Your task to perform on an android device: move an email to a new category in the gmail app Image 0: 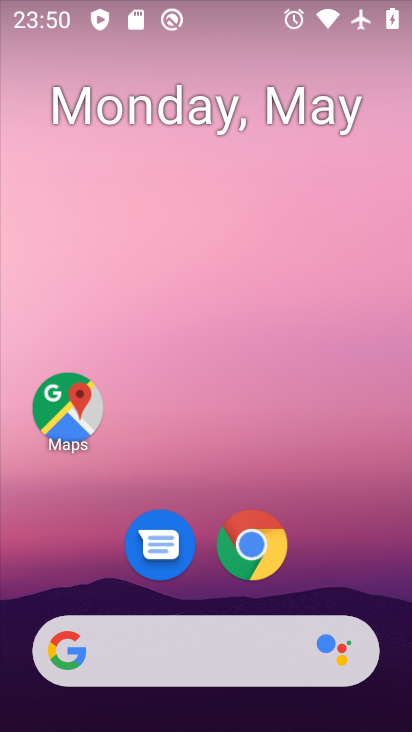
Step 0: drag from (334, 586) to (302, 37)
Your task to perform on an android device: move an email to a new category in the gmail app Image 1: 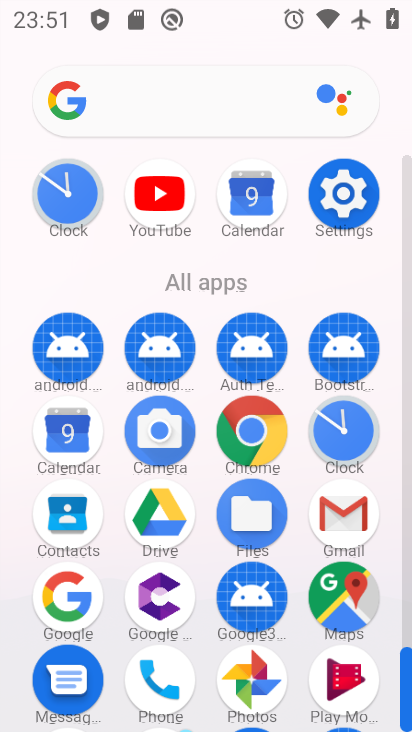
Step 1: click (335, 523)
Your task to perform on an android device: move an email to a new category in the gmail app Image 2: 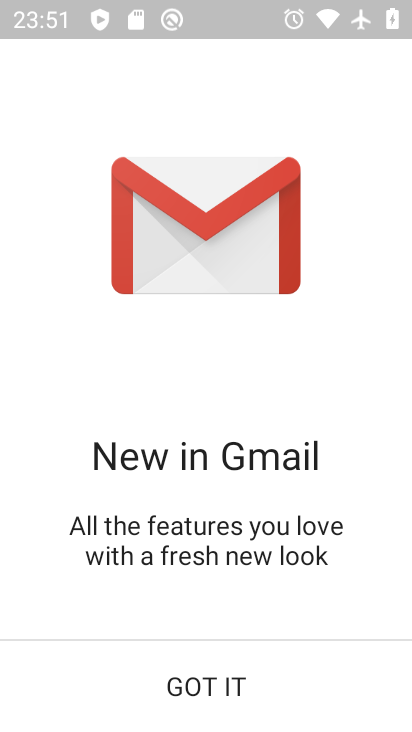
Step 2: click (283, 675)
Your task to perform on an android device: move an email to a new category in the gmail app Image 3: 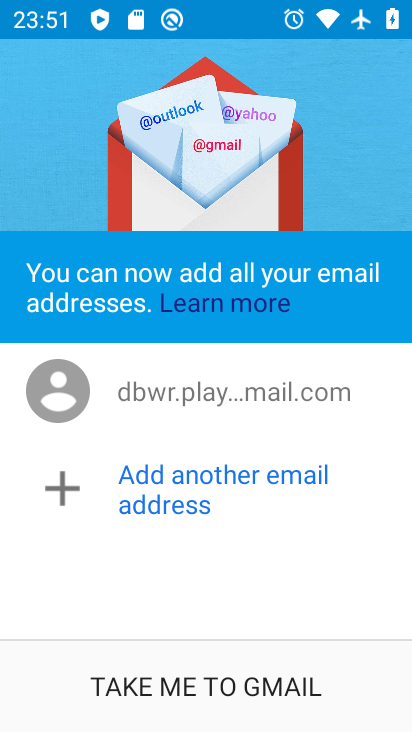
Step 3: click (247, 676)
Your task to perform on an android device: move an email to a new category in the gmail app Image 4: 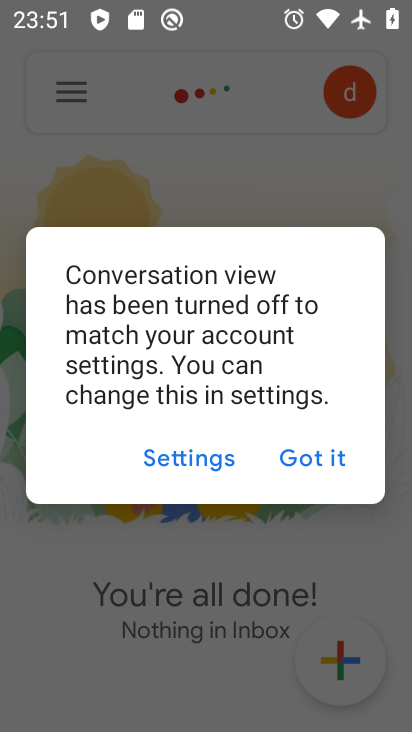
Step 4: click (295, 468)
Your task to perform on an android device: move an email to a new category in the gmail app Image 5: 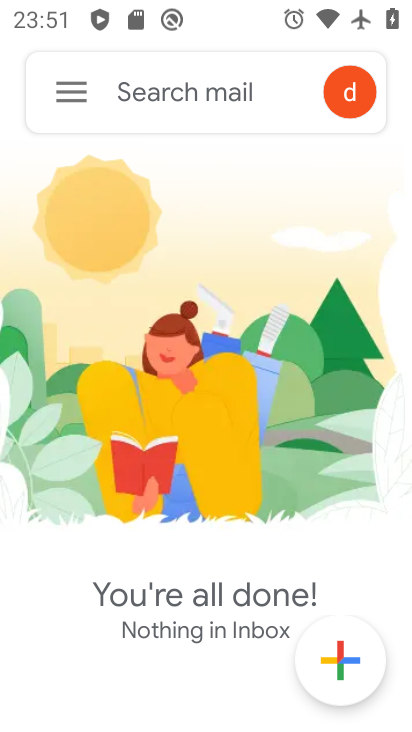
Step 5: click (76, 92)
Your task to perform on an android device: move an email to a new category in the gmail app Image 6: 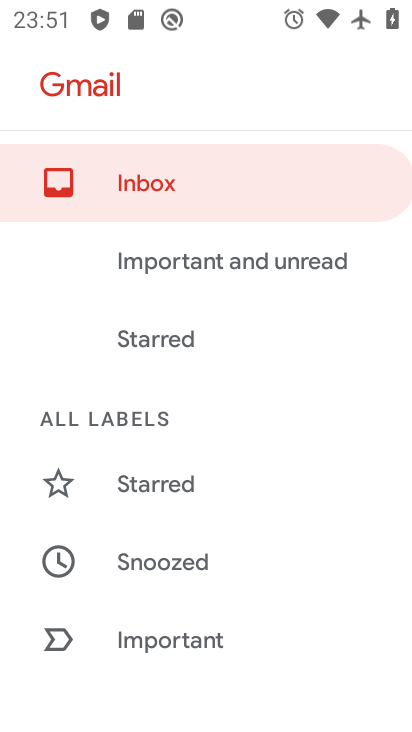
Step 6: drag from (138, 630) to (178, 232)
Your task to perform on an android device: move an email to a new category in the gmail app Image 7: 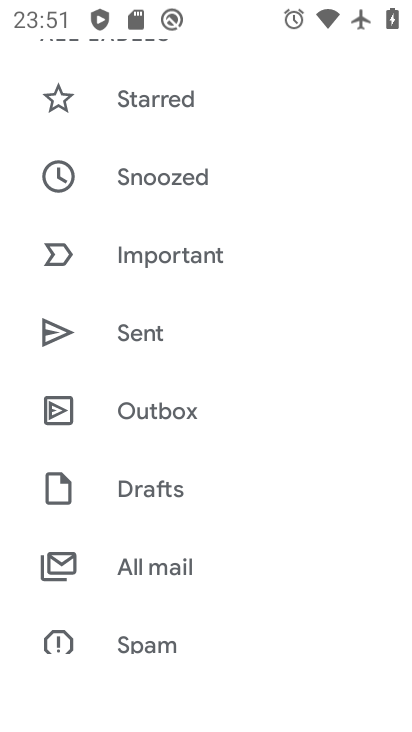
Step 7: click (145, 553)
Your task to perform on an android device: move an email to a new category in the gmail app Image 8: 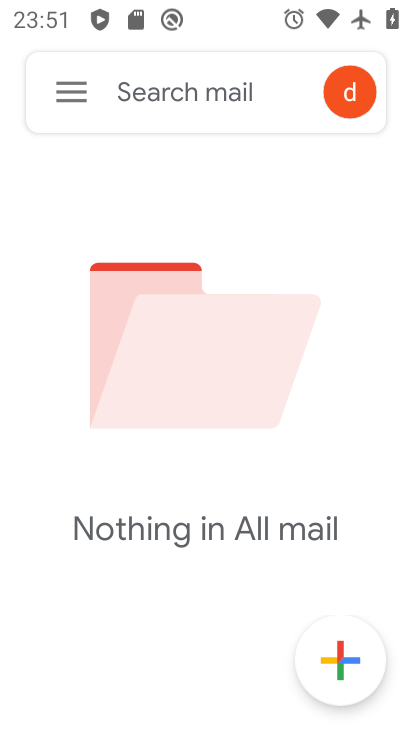
Step 8: task complete